Your task to perform on an android device: Go to eBay Image 0: 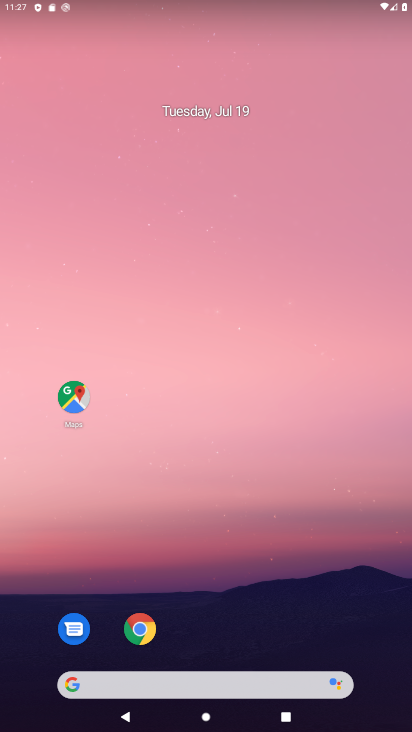
Step 0: drag from (224, 558) to (253, 124)
Your task to perform on an android device: Go to eBay Image 1: 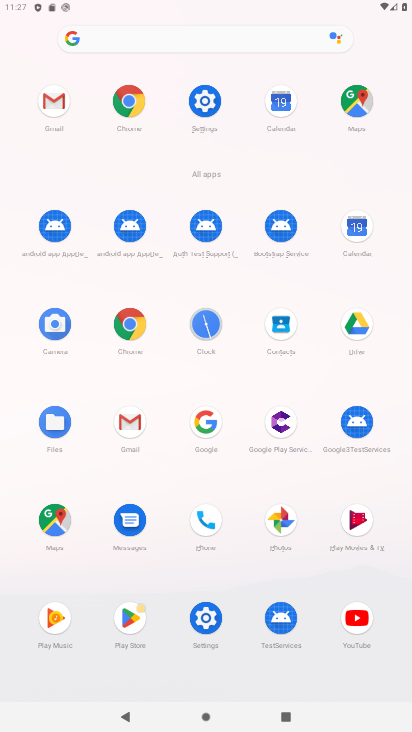
Step 1: click (126, 338)
Your task to perform on an android device: Go to eBay Image 2: 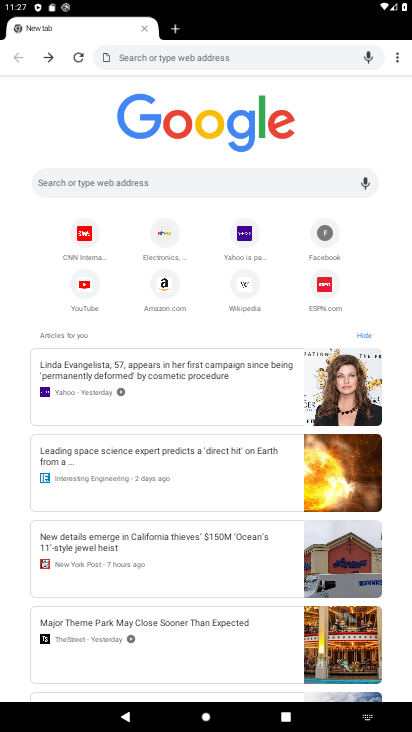
Step 2: click (171, 235)
Your task to perform on an android device: Go to eBay Image 3: 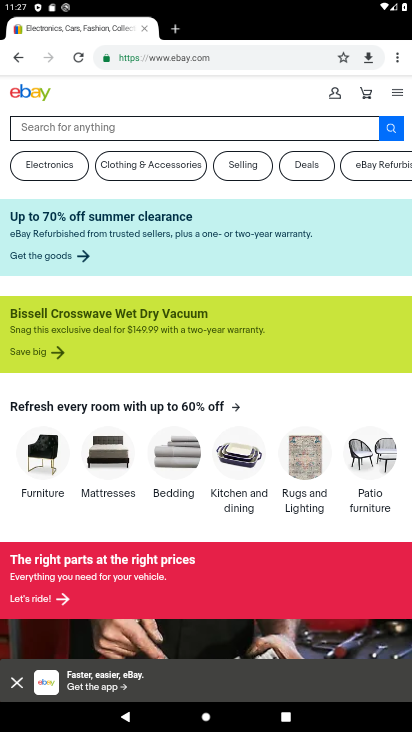
Step 3: task complete